Your task to perform on an android device: Open Google Maps Image 0: 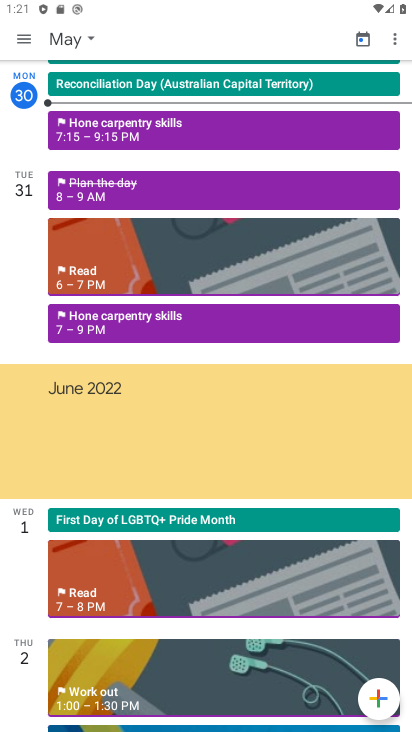
Step 0: press home button
Your task to perform on an android device: Open Google Maps Image 1: 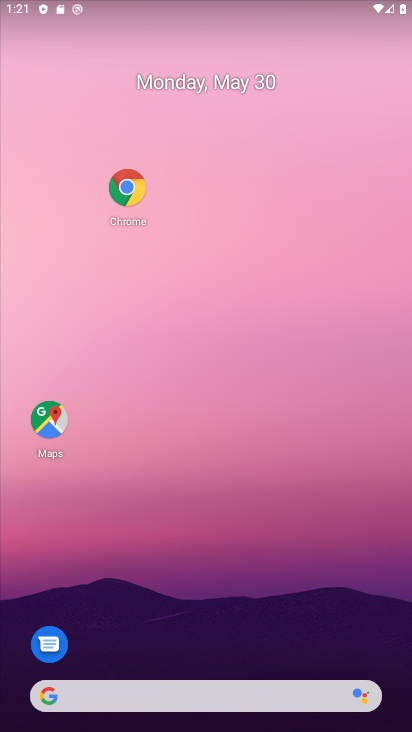
Step 1: click (53, 417)
Your task to perform on an android device: Open Google Maps Image 2: 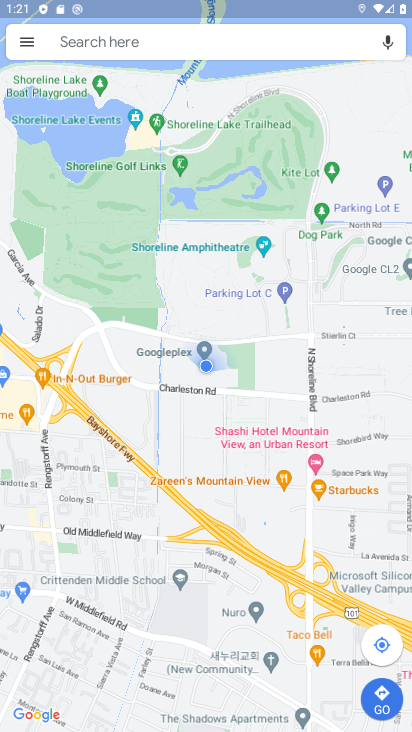
Step 2: task complete